Your task to perform on an android device: Open wifi settings Image 0: 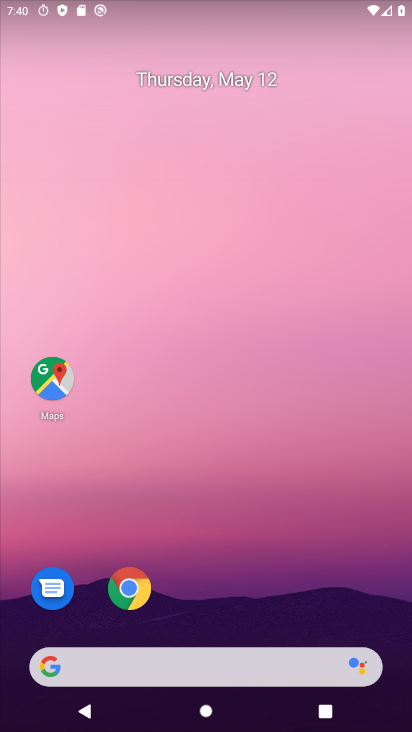
Step 0: drag from (218, 593) to (243, 69)
Your task to perform on an android device: Open wifi settings Image 1: 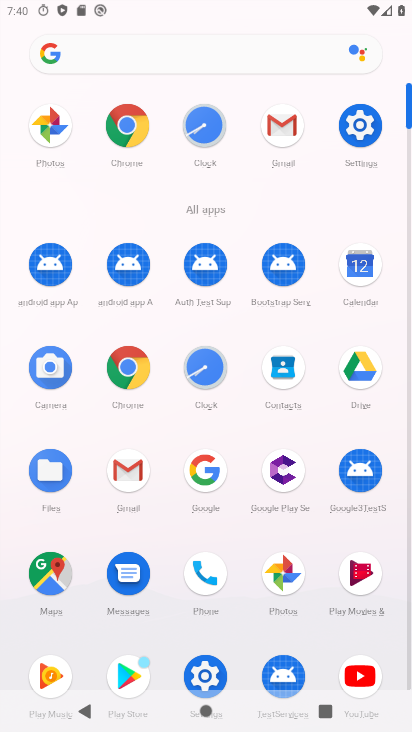
Step 1: click (367, 134)
Your task to perform on an android device: Open wifi settings Image 2: 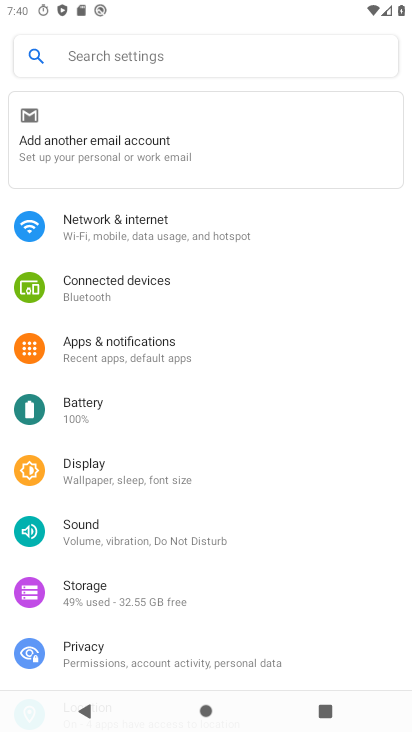
Step 2: click (105, 231)
Your task to perform on an android device: Open wifi settings Image 3: 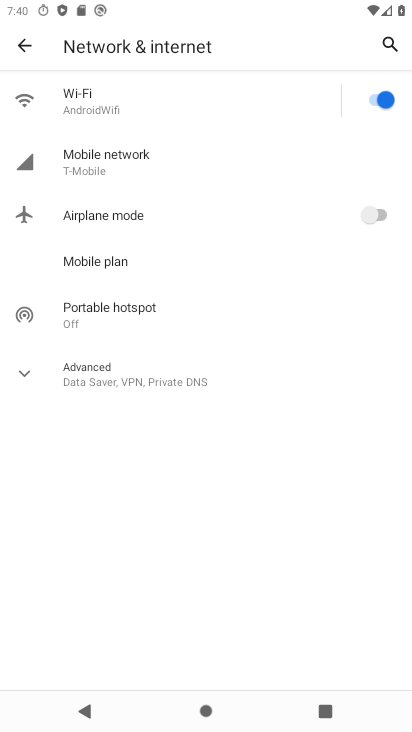
Step 3: click (144, 80)
Your task to perform on an android device: Open wifi settings Image 4: 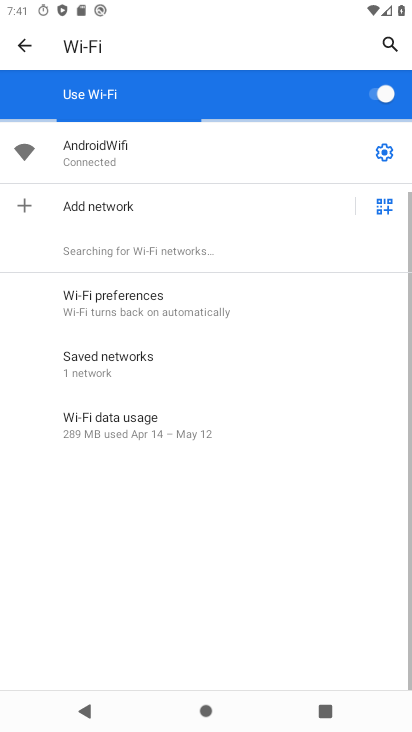
Step 4: click (150, 80)
Your task to perform on an android device: Open wifi settings Image 5: 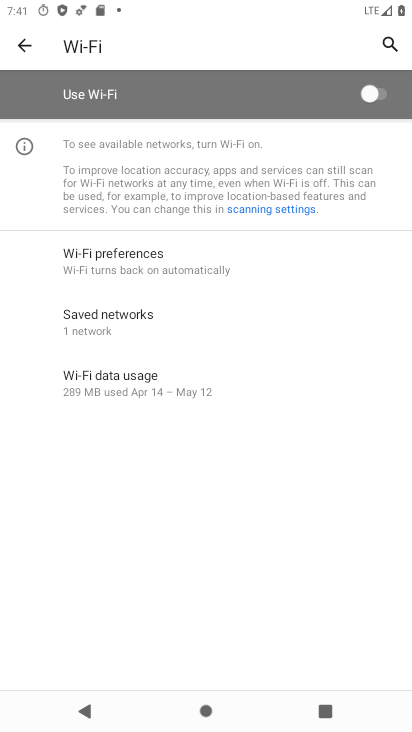
Step 5: task complete